Your task to perform on an android device: Open Yahoo.com Image 0: 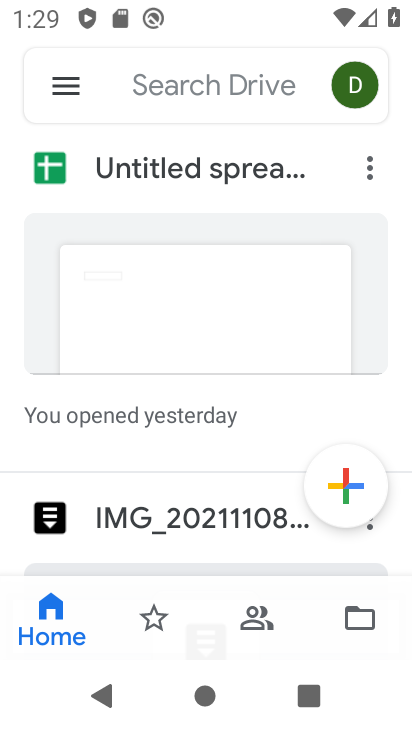
Step 0: press home button
Your task to perform on an android device: Open Yahoo.com Image 1: 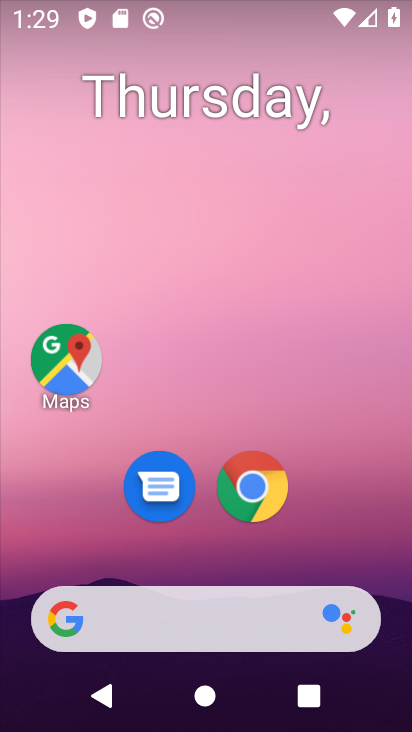
Step 1: click (262, 501)
Your task to perform on an android device: Open Yahoo.com Image 2: 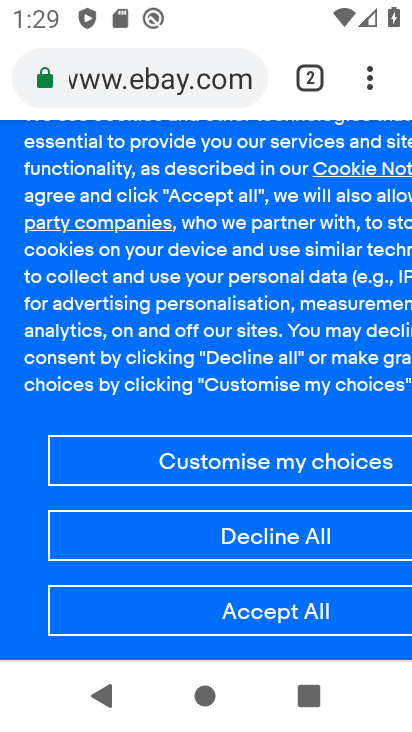
Step 2: click (126, 76)
Your task to perform on an android device: Open Yahoo.com Image 3: 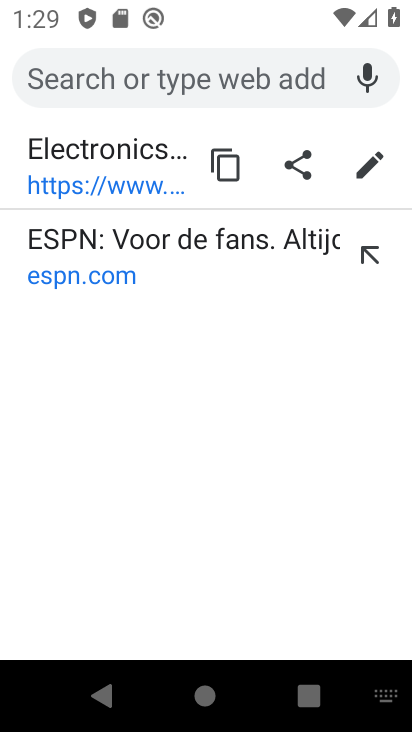
Step 3: type "yahoo.com"
Your task to perform on an android device: Open Yahoo.com Image 4: 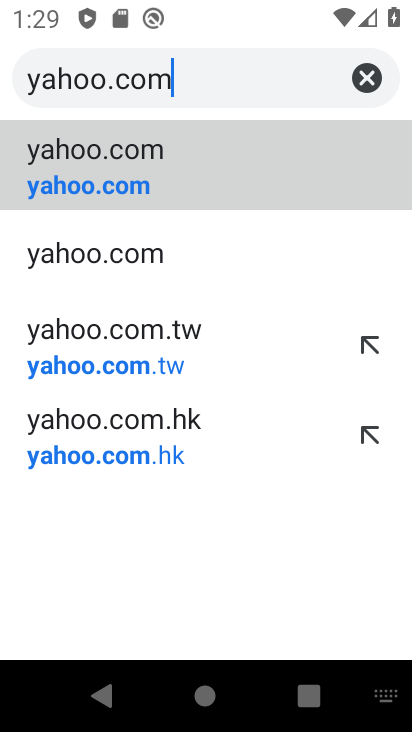
Step 4: click (76, 180)
Your task to perform on an android device: Open Yahoo.com Image 5: 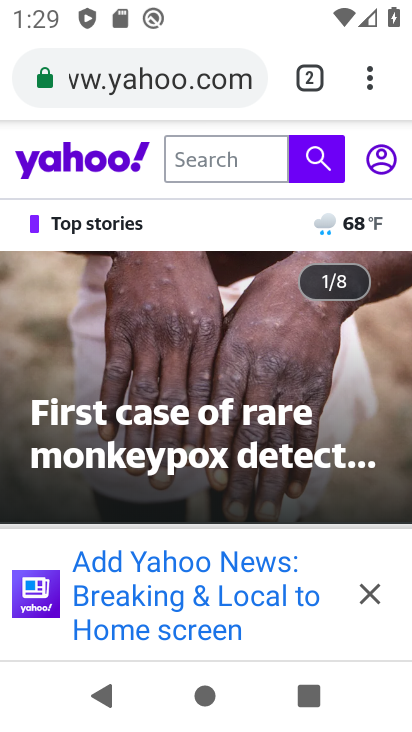
Step 5: task complete